Your task to perform on an android device: Toggle the flashlight Image 0: 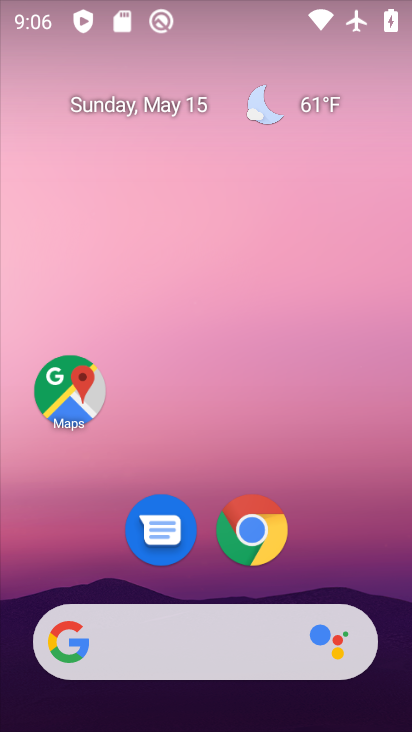
Step 0: drag from (215, 706) to (209, 193)
Your task to perform on an android device: Toggle the flashlight Image 1: 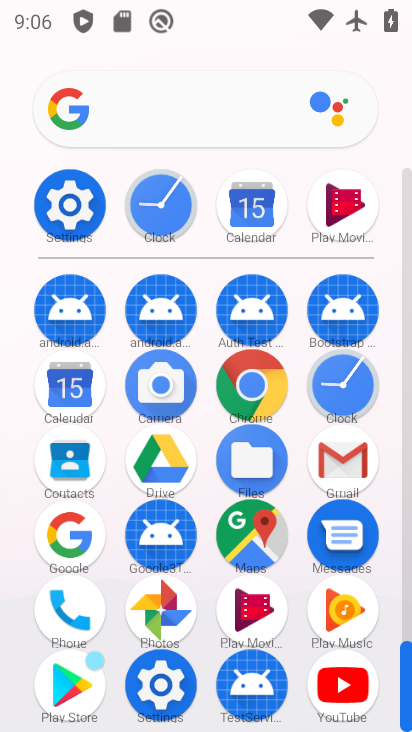
Step 1: click (68, 193)
Your task to perform on an android device: Toggle the flashlight Image 2: 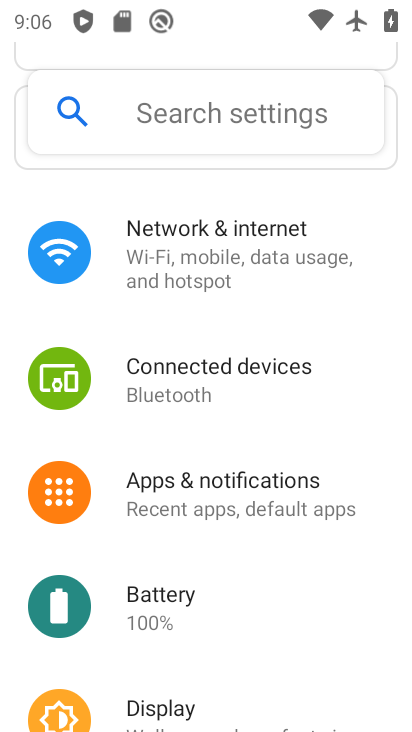
Step 2: task complete